Your task to perform on an android device: change alarm snooze length Image 0: 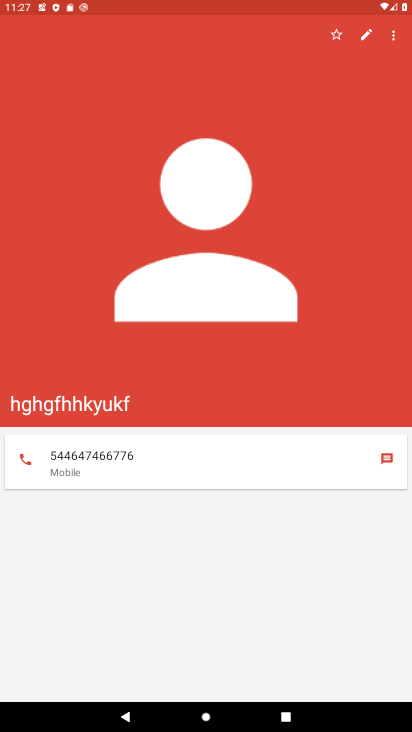
Step 0: press home button
Your task to perform on an android device: change alarm snooze length Image 1: 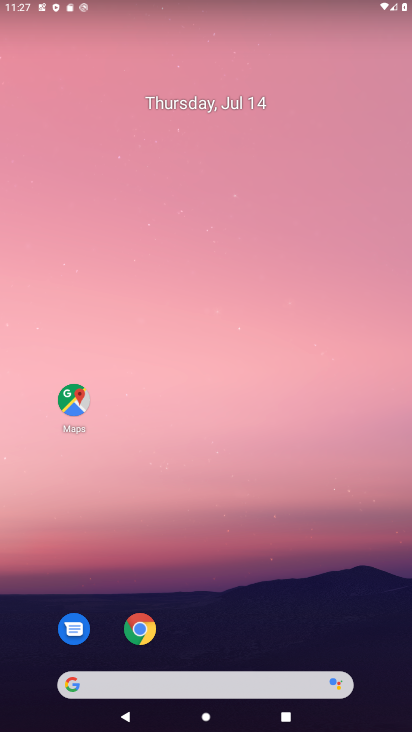
Step 1: drag from (256, 625) to (287, 162)
Your task to perform on an android device: change alarm snooze length Image 2: 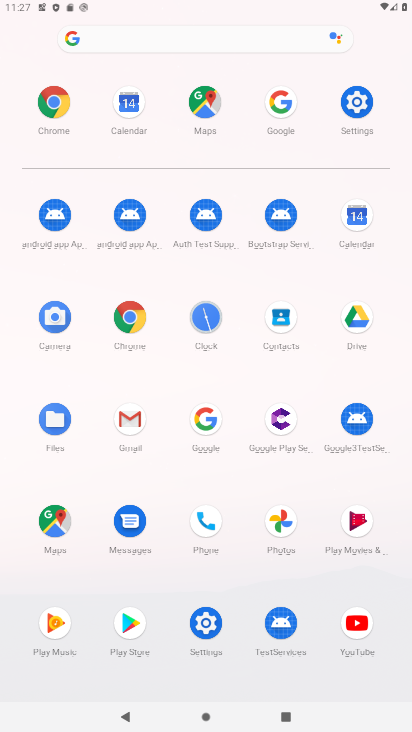
Step 2: click (218, 312)
Your task to perform on an android device: change alarm snooze length Image 3: 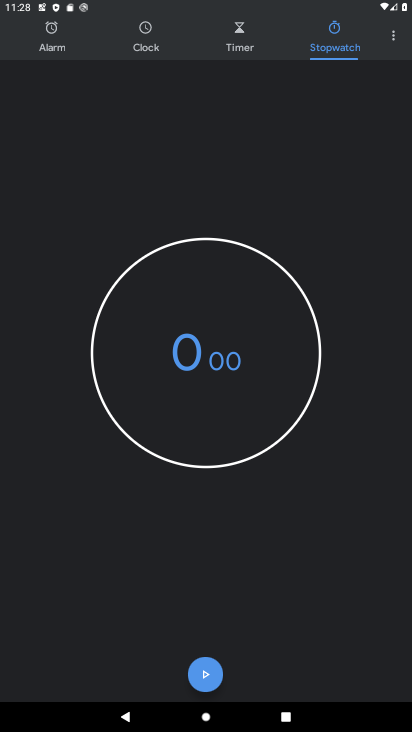
Step 3: click (390, 36)
Your task to perform on an android device: change alarm snooze length Image 4: 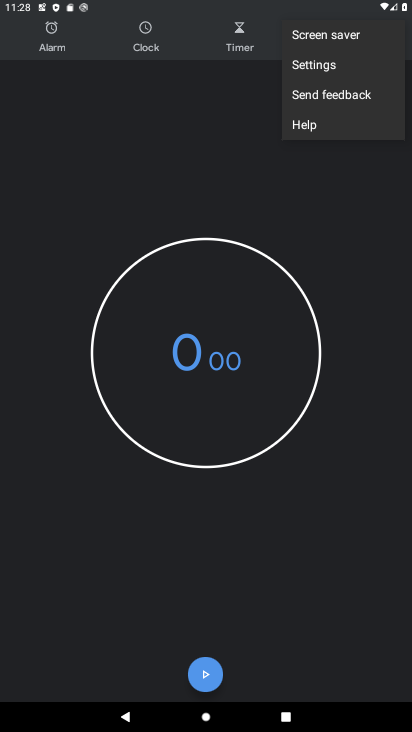
Step 4: click (315, 67)
Your task to perform on an android device: change alarm snooze length Image 5: 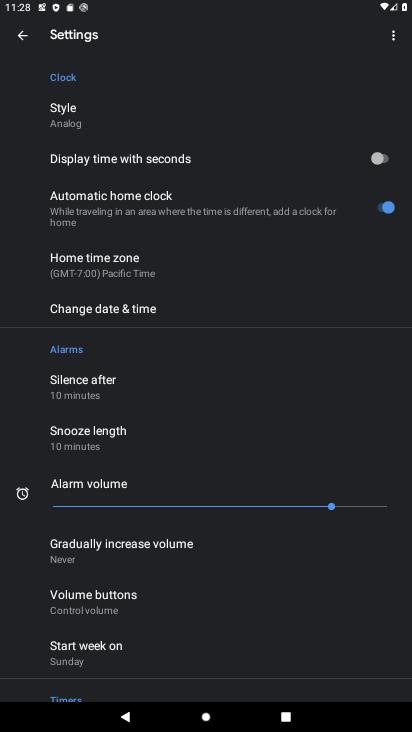
Step 5: click (99, 432)
Your task to perform on an android device: change alarm snooze length Image 6: 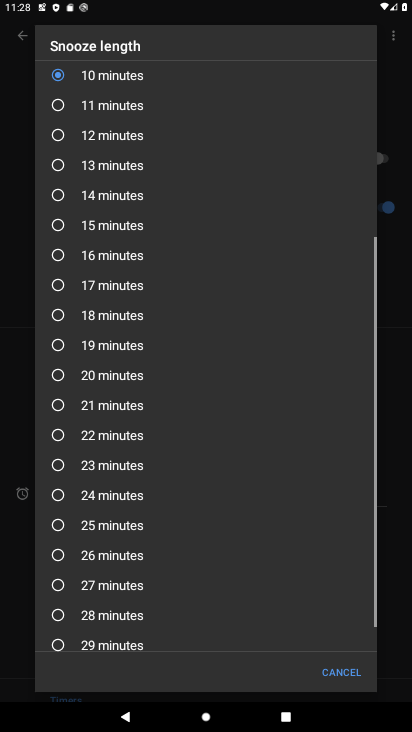
Step 6: click (132, 443)
Your task to perform on an android device: change alarm snooze length Image 7: 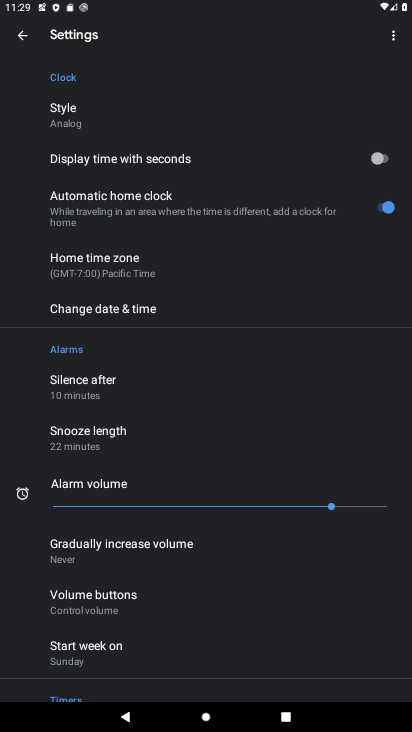
Step 7: task complete